Your task to perform on an android device: Open Google Chrome and open the bookmarks view Image 0: 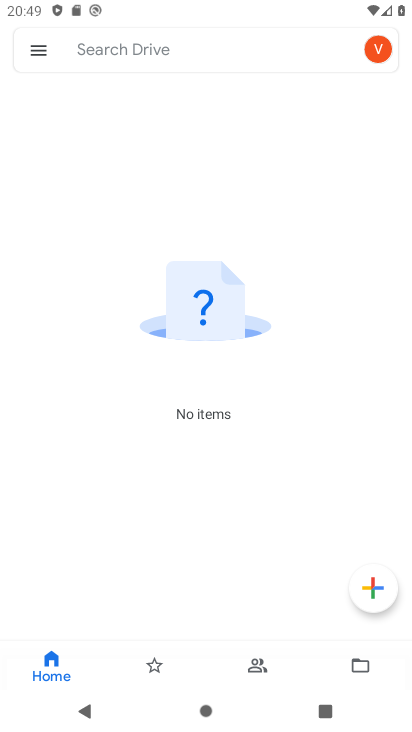
Step 0: press home button
Your task to perform on an android device: Open Google Chrome and open the bookmarks view Image 1: 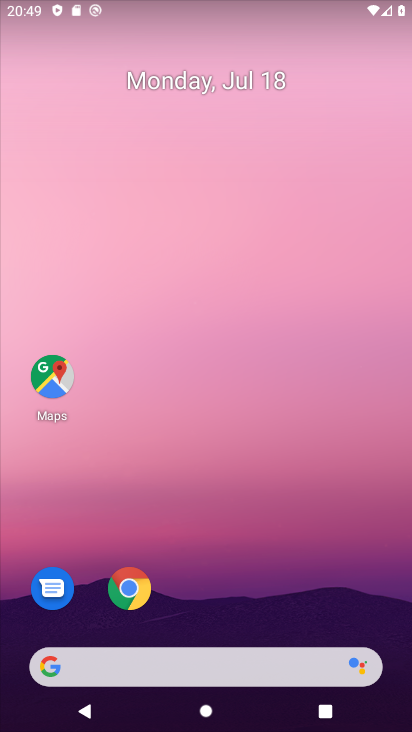
Step 1: click (126, 595)
Your task to perform on an android device: Open Google Chrome and open the bookmarks view Image 2: 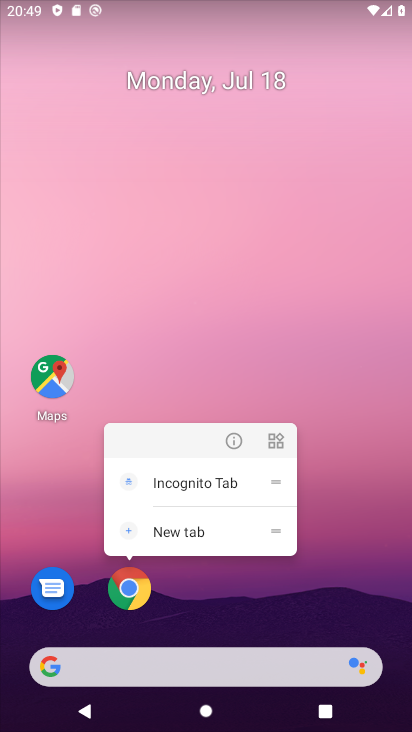
Step 2: click (134, 587)
Your task to perform on an android device: Open Google Chrome and open the bookmarks view Image 3: 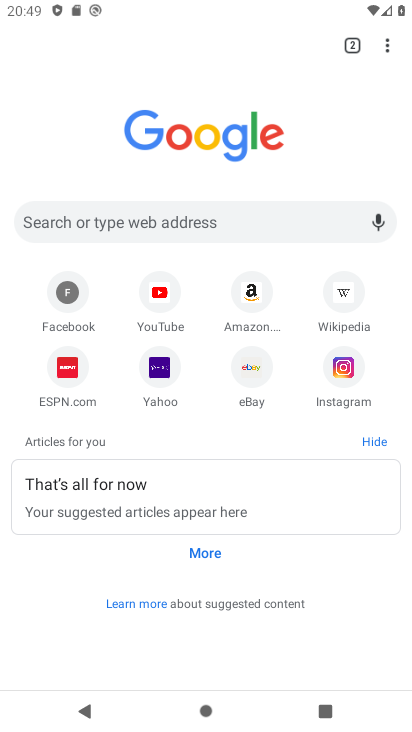
Step 3: task complete